Your task to perform on an android device: set default search engine in the chrome app Image 0: 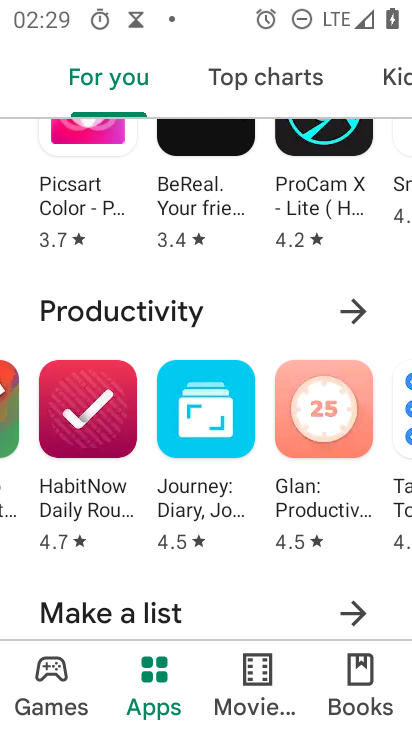
Step 0: press home button
Your task to perform on an android device: set default search engine in the chrome app Image 1: 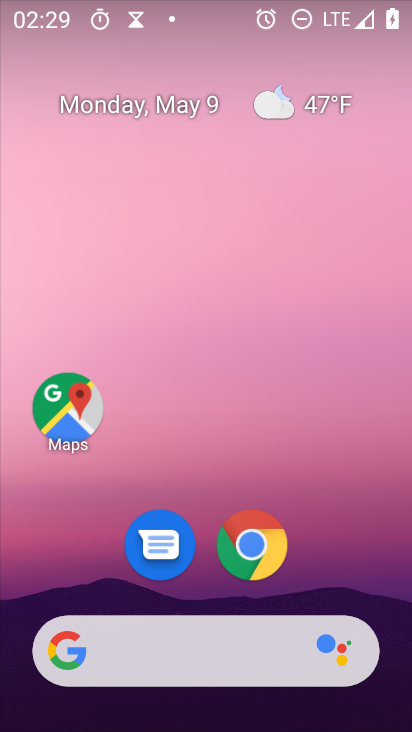
Step 1: drag from (381, 620) to (371, 39)
Your task to perform on an android device: set default search engine in the chrome app Image 2: 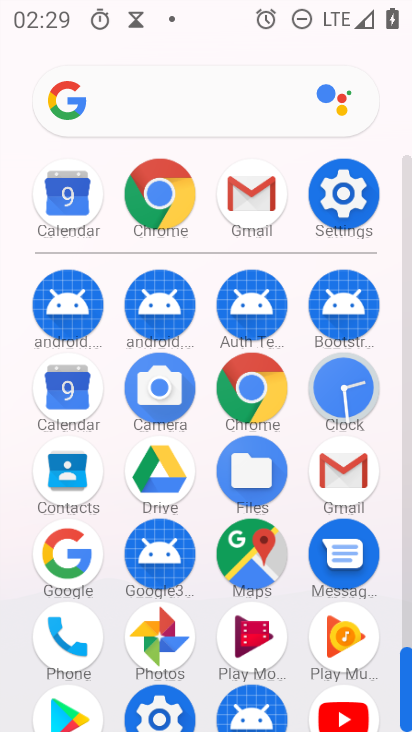
Step 2: click (252, 374)
Your task to perform on an android device: set default search engine in the chrome app Image 3: 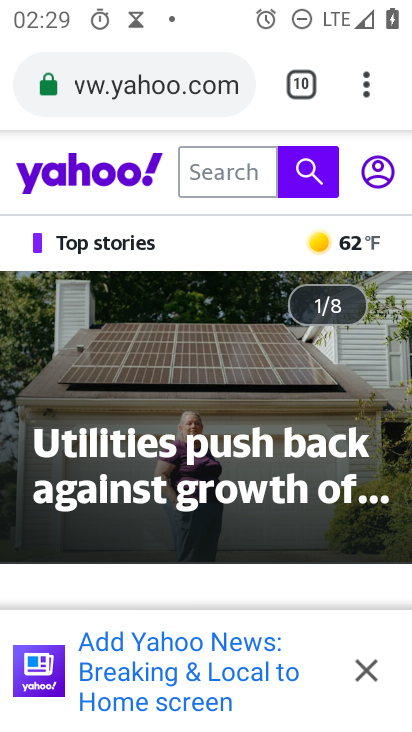
Step 3: drag from (370, 86) to (182, 604)
Your task to perform on an android device: set default search engine in the chrome app Image 4: 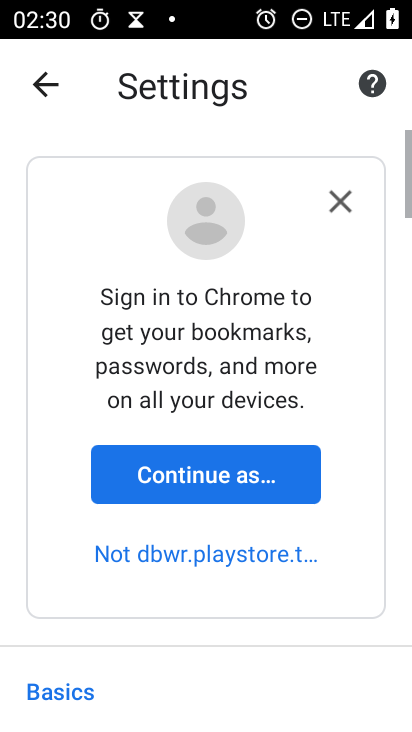
Step 4: drag from (211, 662) to (265, 53)
Your task to perform on an android device: set default search engine in the chrome app Image 5: 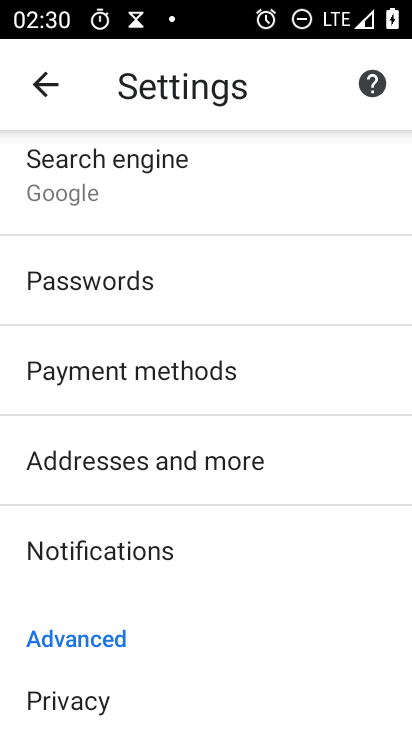
Step 5: click (161, 176)
Your task to perform on an android device: set default search engine in the chrome app Image 6: 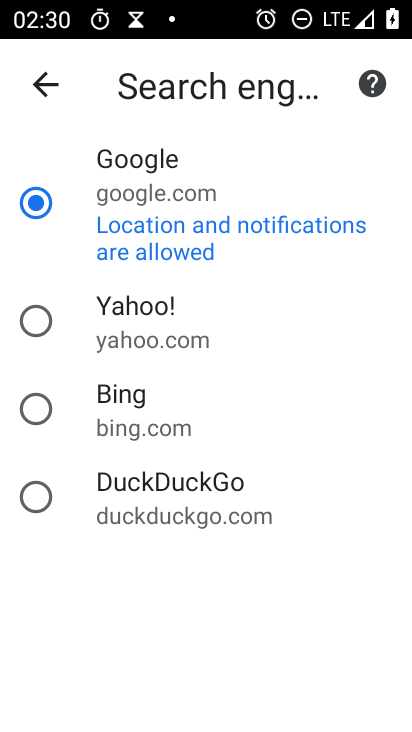
Step 6: task complete